Your task to perform on an android device: turn on the 12-hour format for clock Image 0: 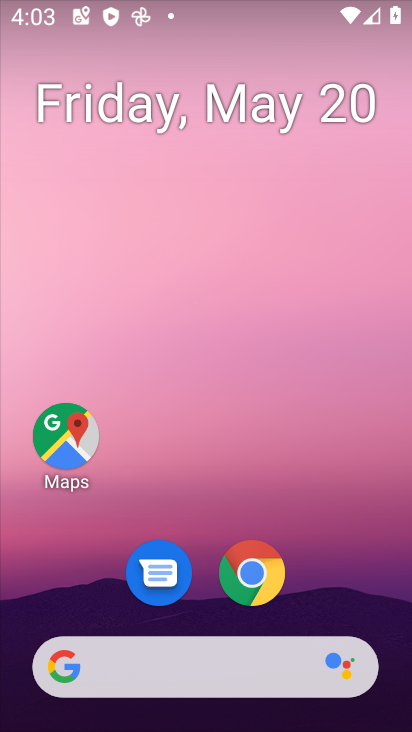
Step 0: drag from (388, 618) to (366, 63)
Your task to perform on an android device: turn on the 12-hour format for clock Image 1: 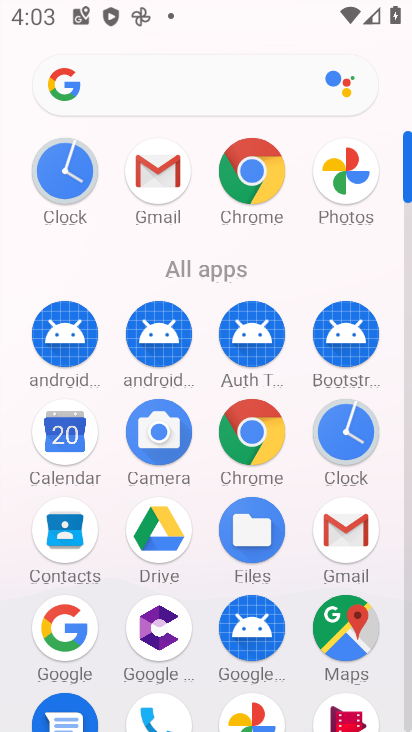
Step 1: click (409, 675)
Your task to perform on an android device: turn on the 12-hour format for clock Image 2: 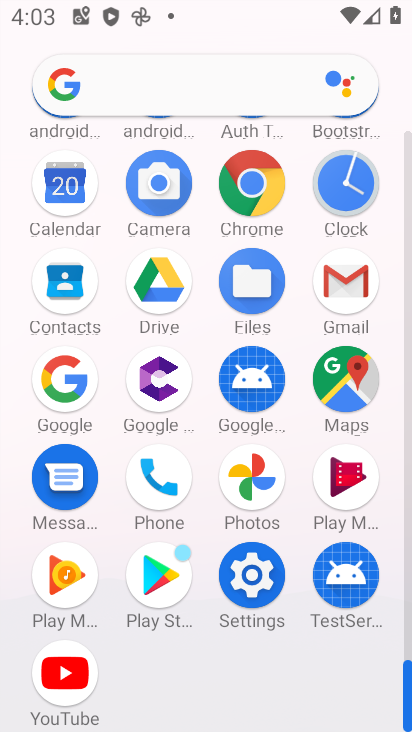
Step 2: click (346, 177)
Your task to perform on an android device: turn on the 12-hour format for clock Image 3: 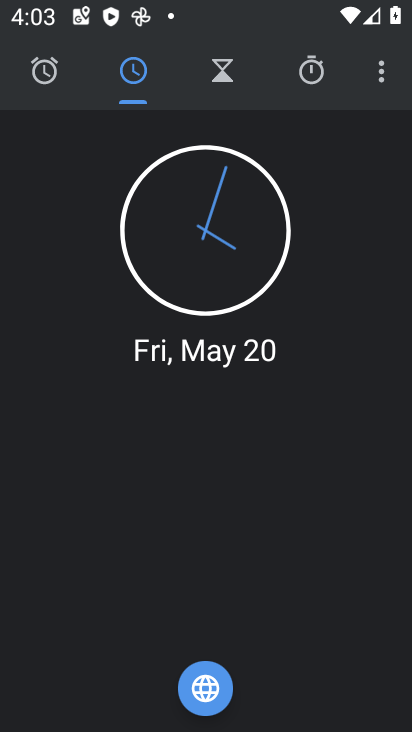
Step 3: click (385, 84)
Your task to perform on an android device: turn on the 12-hour format for clock Image 4: 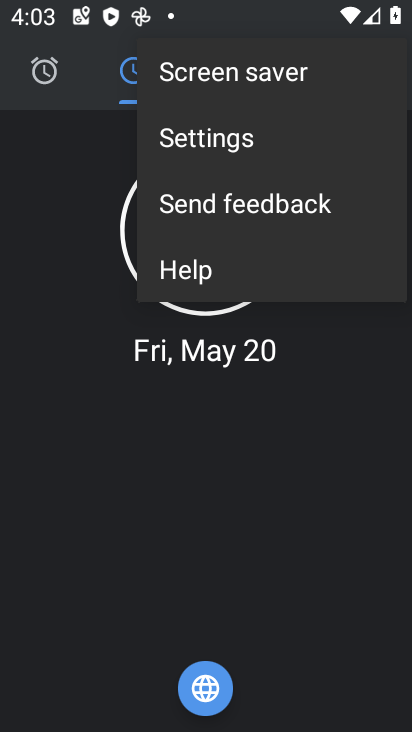
Step 4: click (183, 136)
Your task to perform on an android device: turn on the 12-hour format for clock Image 5: 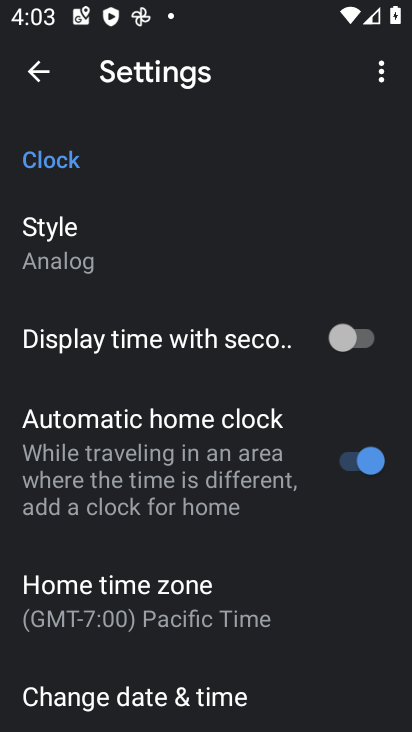
Step 5: drag from (299, 578) to (308, 165)
Your task to perform on an android device: turn on the 12-hour format for clock Image 6: 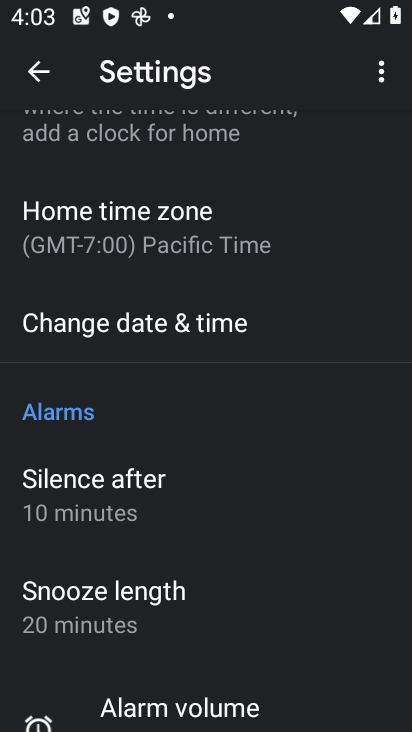
Step 6: click (101, 327)
Your task to perform on an android device: turn on the 12-hour format for clock Image 7: 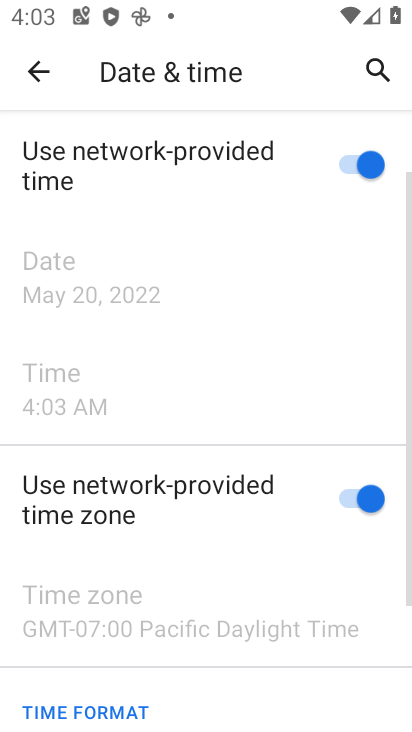
Step 7: task complete